Your task to perform on an android device: Add usb-a to the cart on newegg.com Image 0: 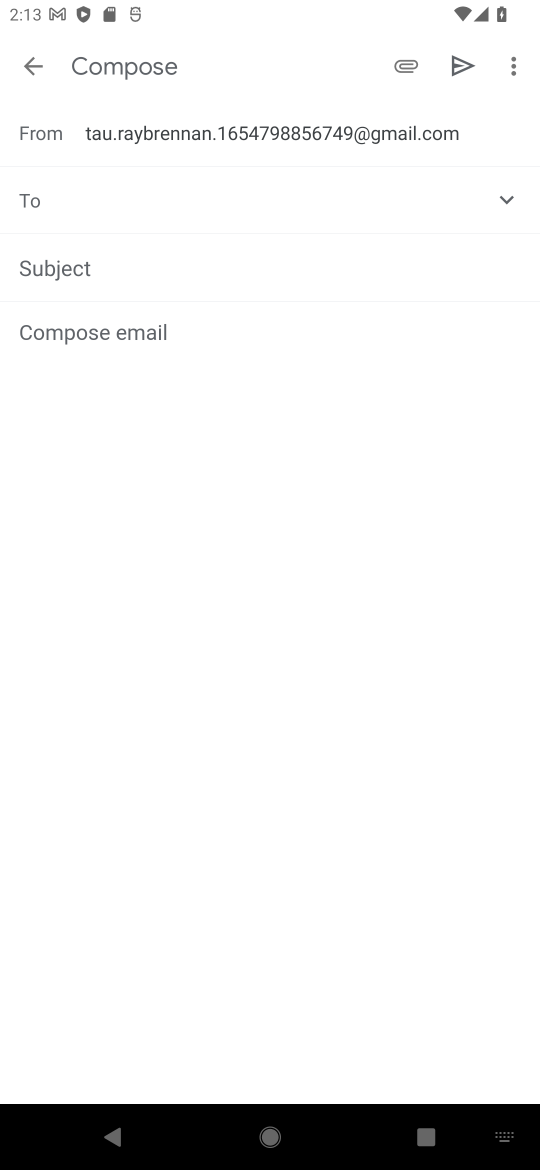
Step 0: press home button
Your task to perform on an android device: Add usb-a to the cart on newegg.com Image 1: 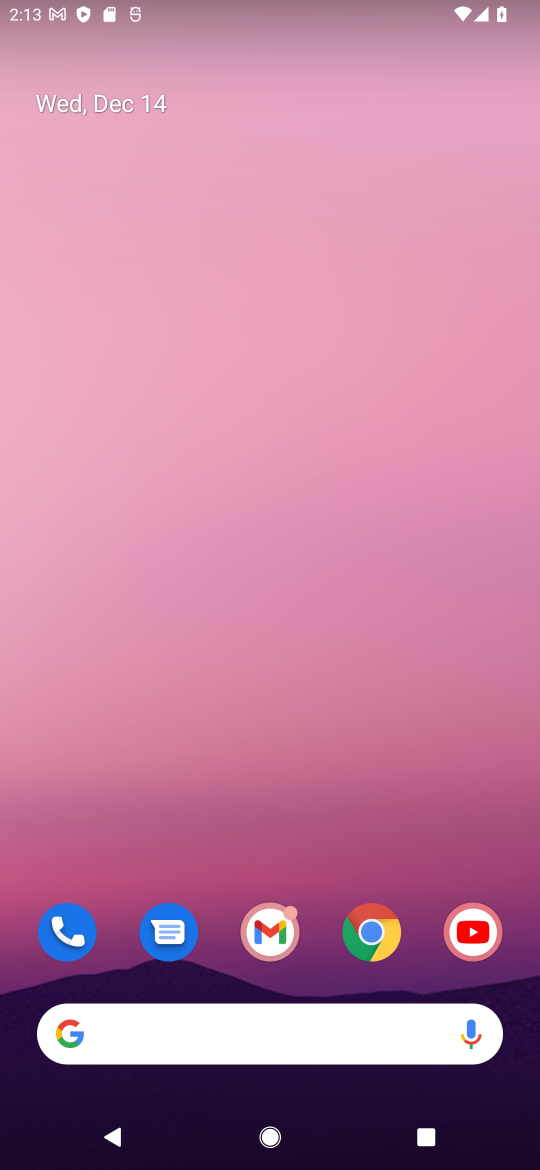
Step 1: click (217, 1030)
Your task to perform on an android device: Add usb-a to the cart on newegg.com Image 2: 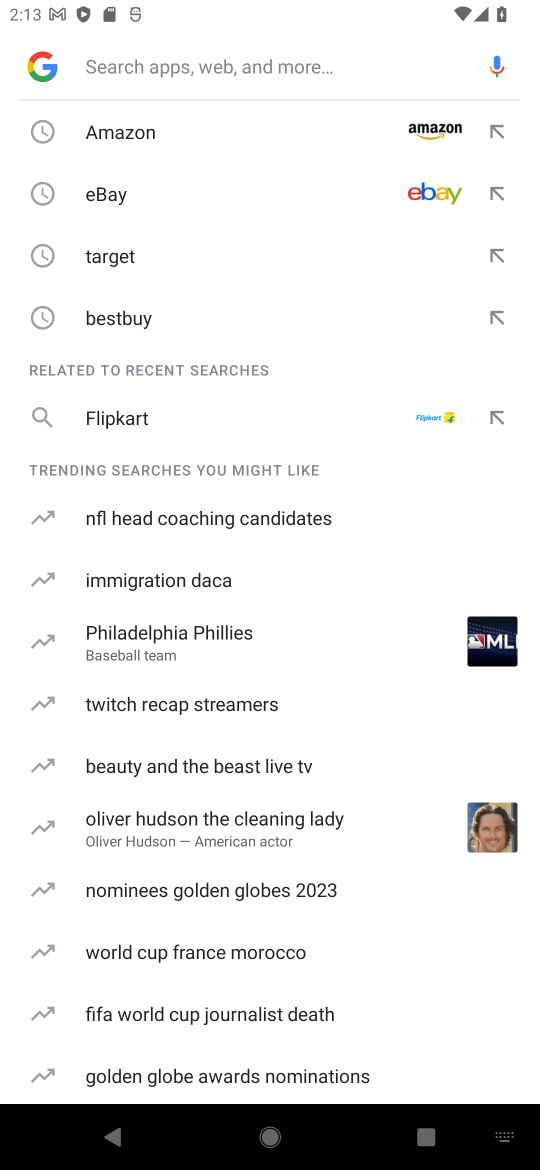
Step 2: press home button
Your task to perform on an android device: Add usb-a to the cart on newegg.com Image 3: 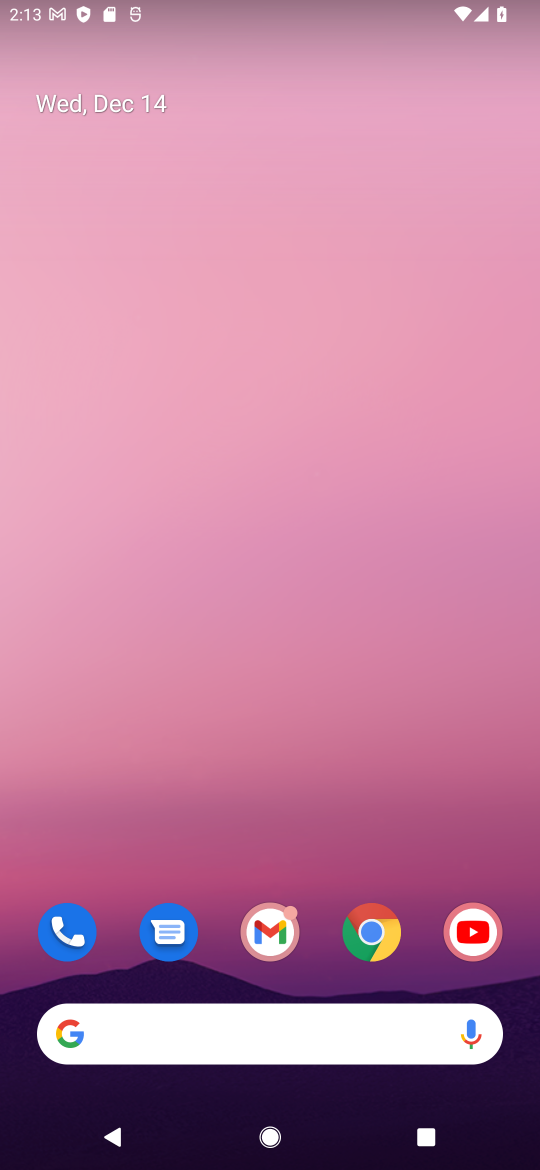
Step 3: click (250, 1038)
Your task to perform on an android device: Add usb-a to the cart on newegg.com Image 4: 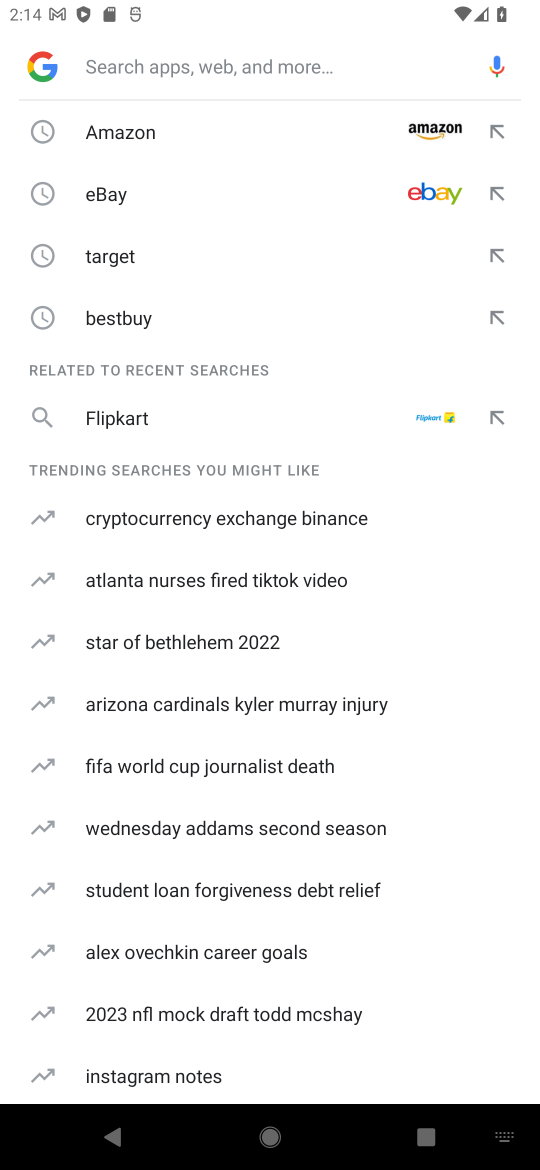
Step 4: type " newegg.com"
Your task to perform on an android device: Add usb-a to the cart on newegg.com Image 5: 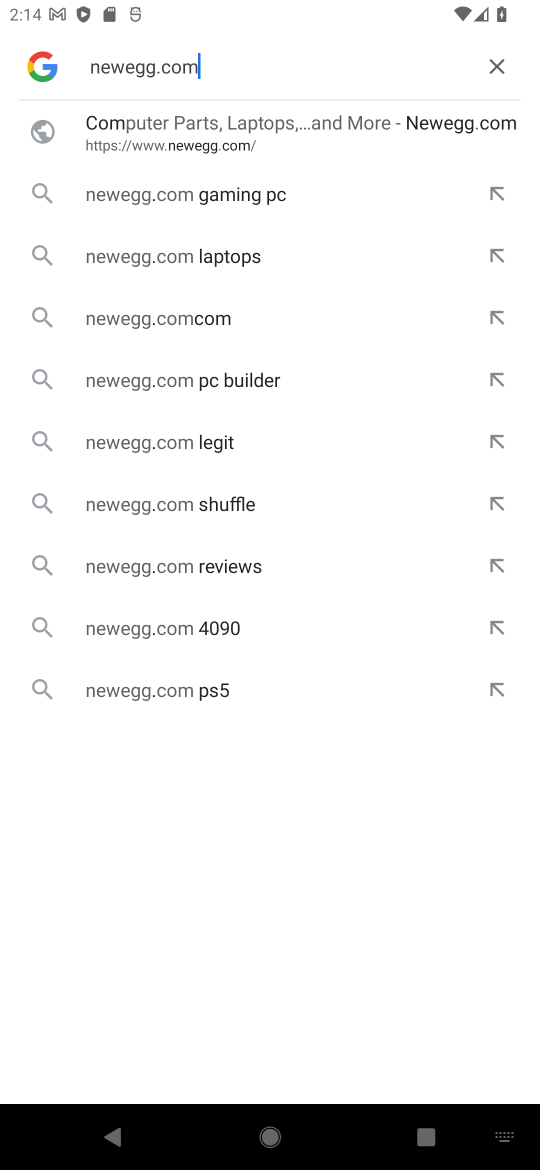
Step 5: click (214, 146)
Your task to perform on an android device: Add usb-a to the cart on newegg.com Image 6: 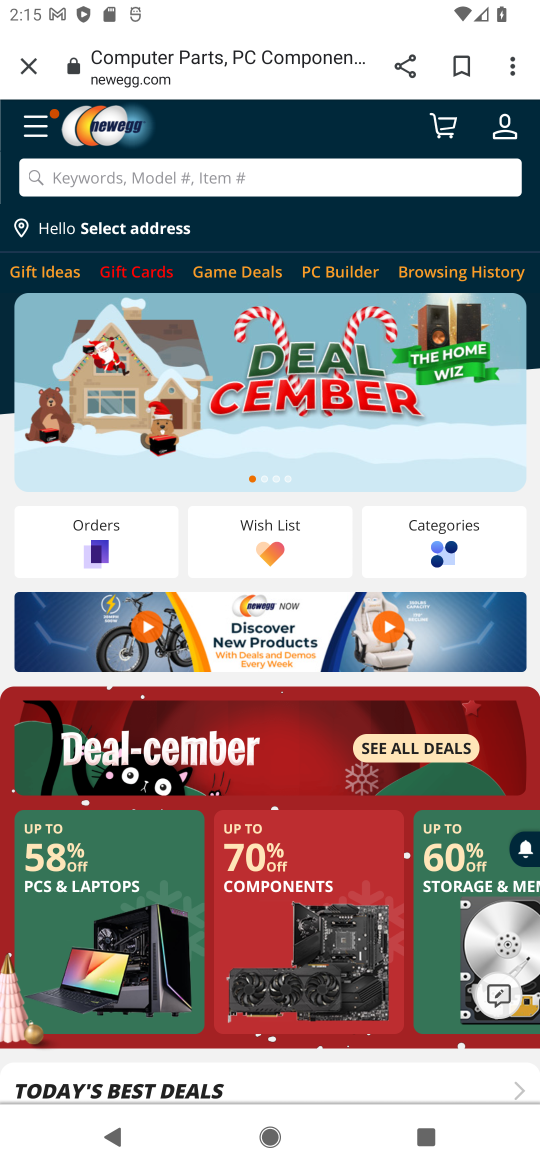
Step 6: click (222, 181)
Your task to perform on an android device: Add usb-a to the cart on newegg.com Image 7: 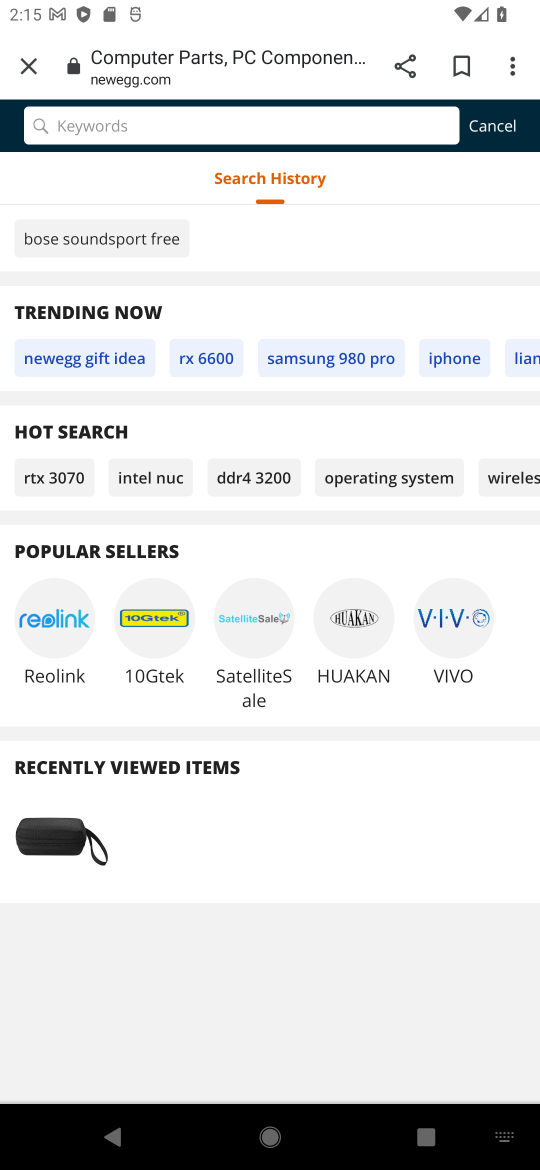
Step 7: type "usb-a"
Your task to perform on an android device: Add usb-a to the cart on newegg.com Image 8: 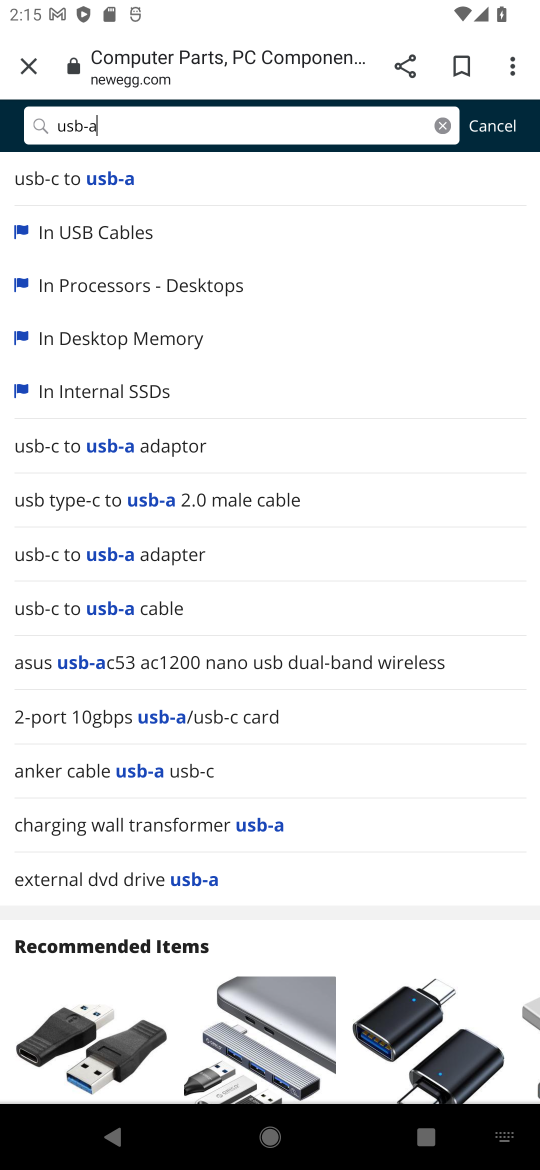
Step 8: click (74, 235)
Your task to perform on an android device: Add usb-a to the cart on newegg.com Image 9: 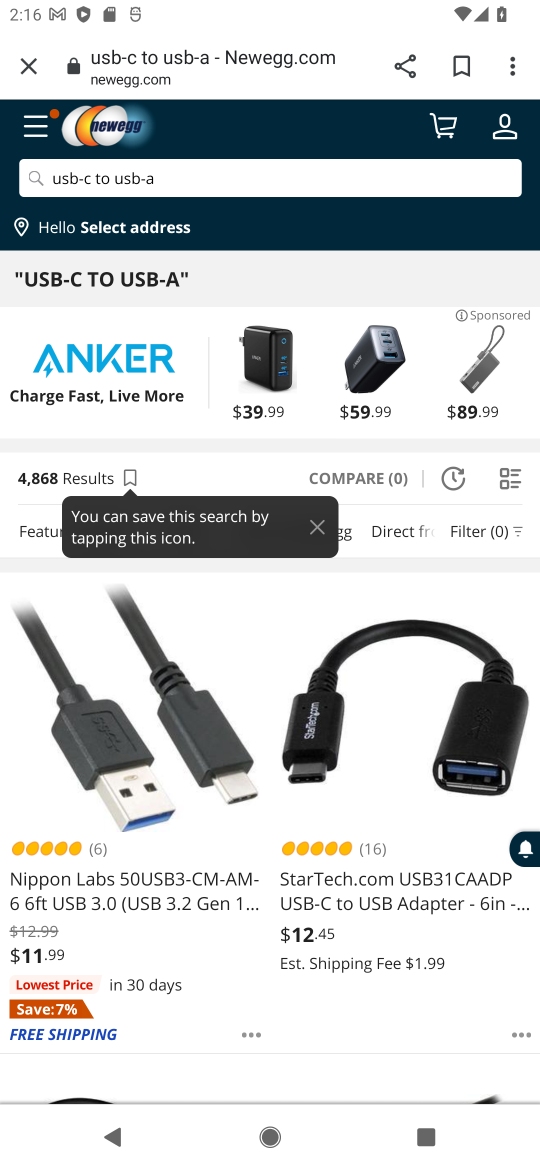
Step 9: click (101, 814)
Your task to perform on an android device: Add usb-a to the cart on newegg.com Image 10: 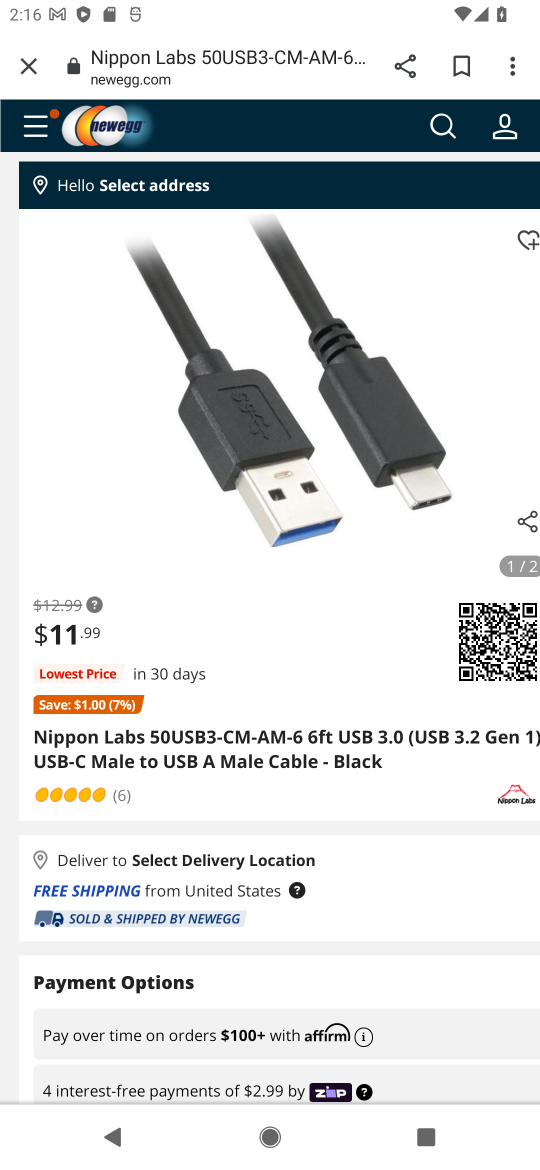
Step 10: drag from (304, 967) to (302, 531)
Your task to perform on an android device: Add usb-a to the cart on newegg.com Image 11: 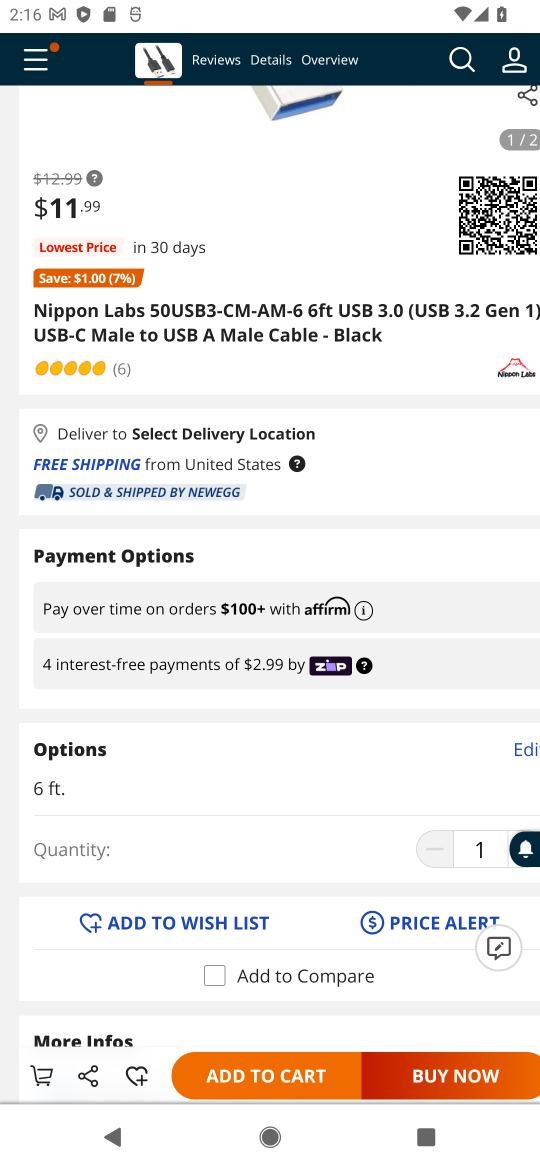
Step 11: click (263, 1076)
Your task to perform on an android device: Add usb-a to the cart on newegg.com Image 12: 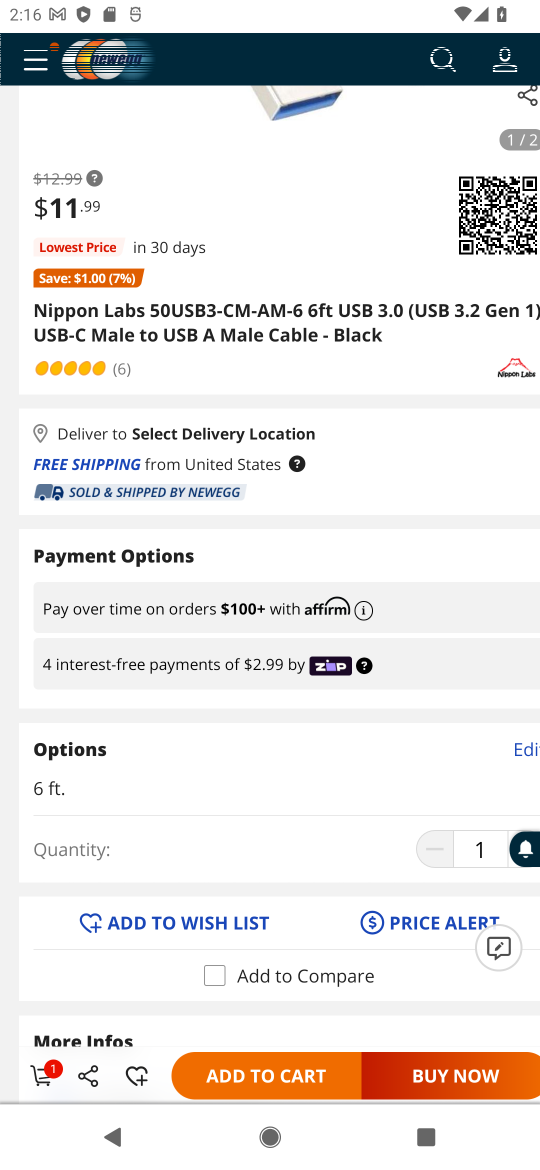
Step 12: task complete